Your task to perform on an android device: turn off wifi Image 0: 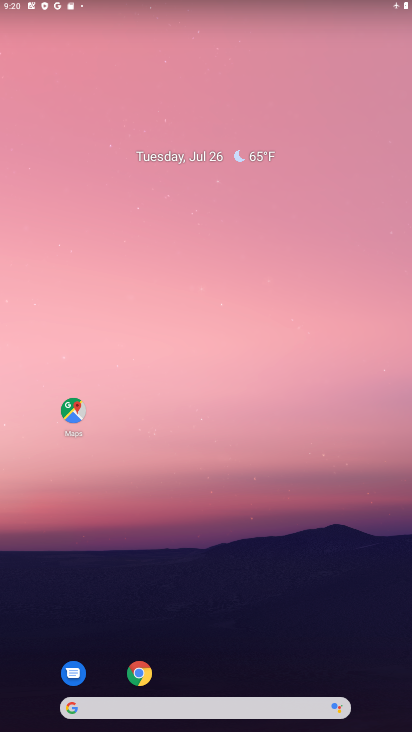
Step 0: drag from (378, 648) to (356, 107)
Your task to perform on an android device: turn off wifi Image 1: 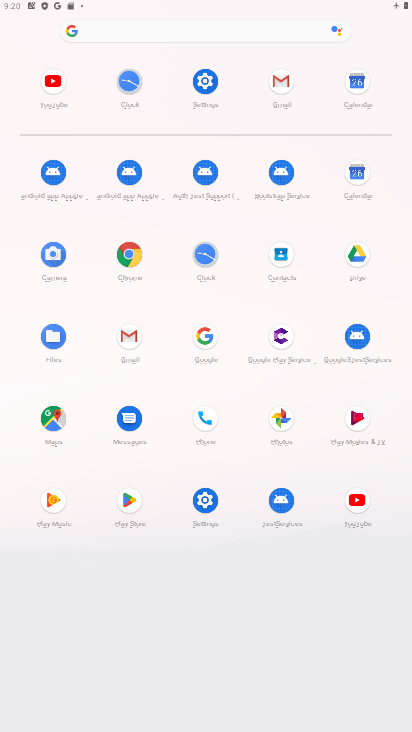
Step 1: click (203, 502)
Your task to perform on an android device: turn off wifi Image 2: 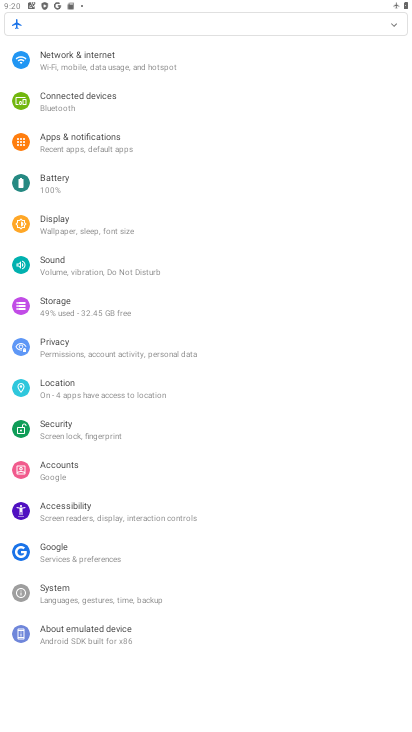
Step 2: click (82, 55)
Your task to perform on an android device: turn off wifi Image 3: 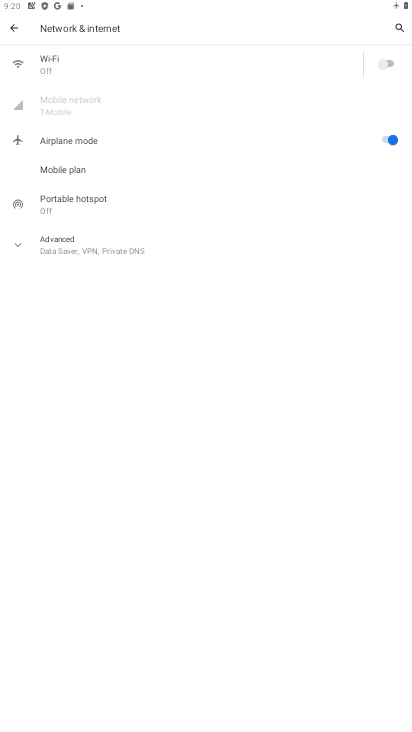
Step 3: task complete